Your task to perform on an android device: Is it going to rain this weekend? Image 0: 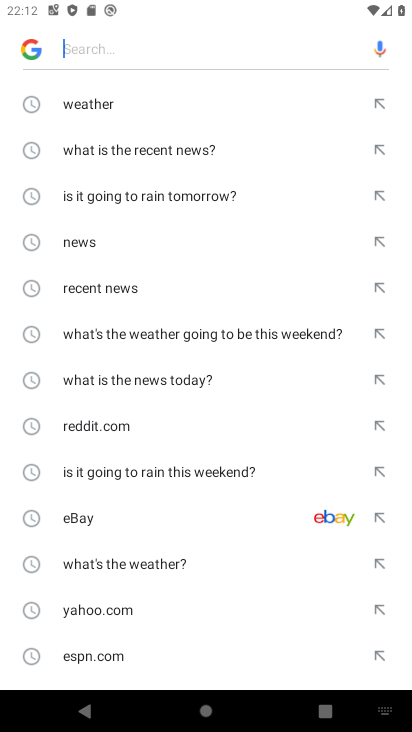
Step 0: press home button
Your task to perform on an android device: Is it going to rain this weekend? Image 1: 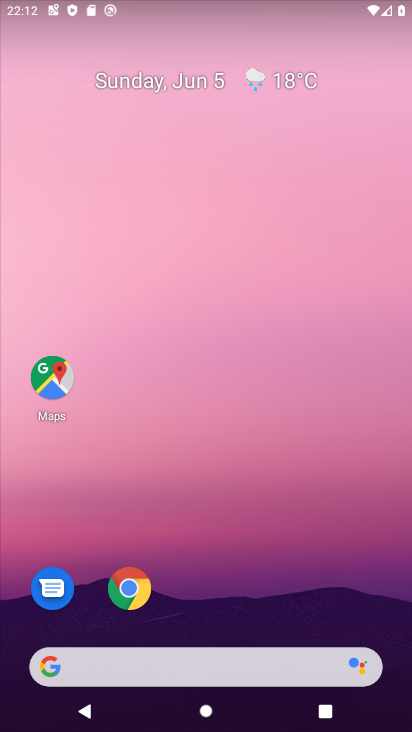
Step 1: click (291, 82)
Your task to perform on an android device: Is it going to rain this weekend? Image 2: 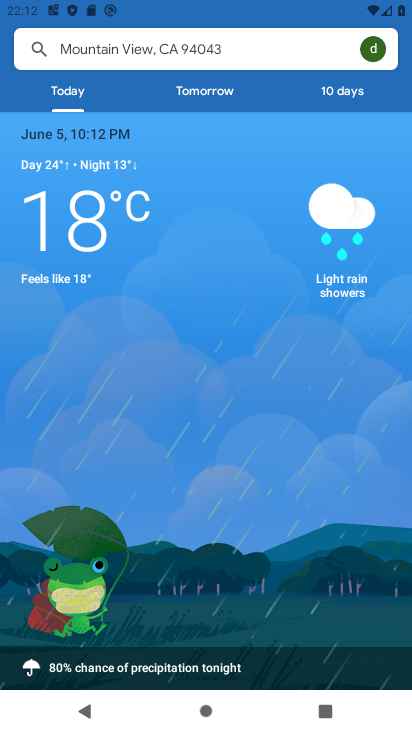
Step 2: click (345, 92)
Your task to perform on an android device: Is it going to rain this weekend? Image 3: 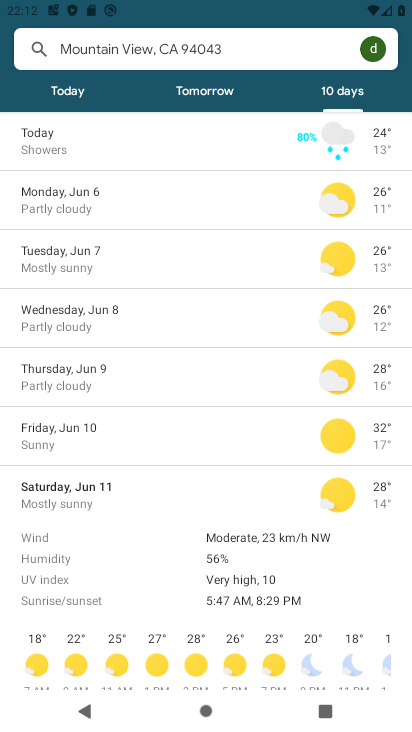
Step 3: task complete